Your task to perform on an android device: Open the calendar and show me this week's events? Image 0: 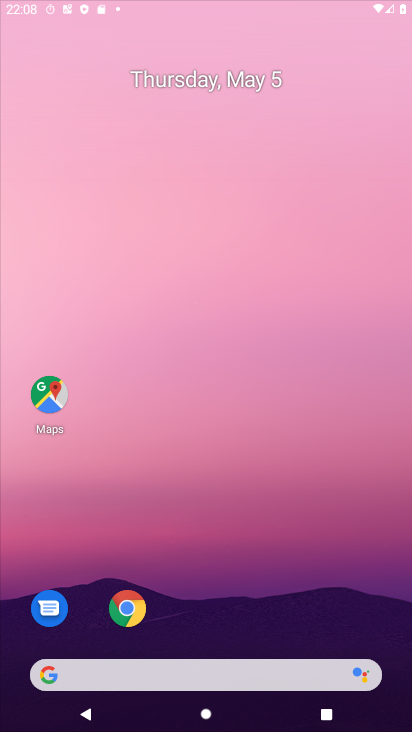
Step 0: click (341, 2)
Your task to perform on an android device: Open the calendar and show me this week's events? Image 1: 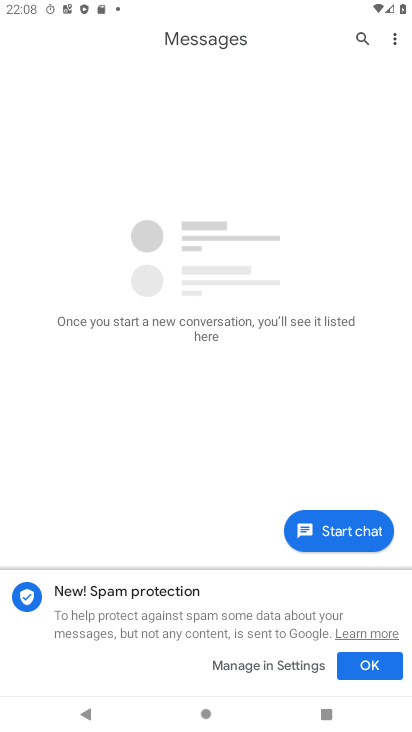
Step 1: press home button
Your task to perform on an android device: Open the calendar and show me this week's events? Image 2: 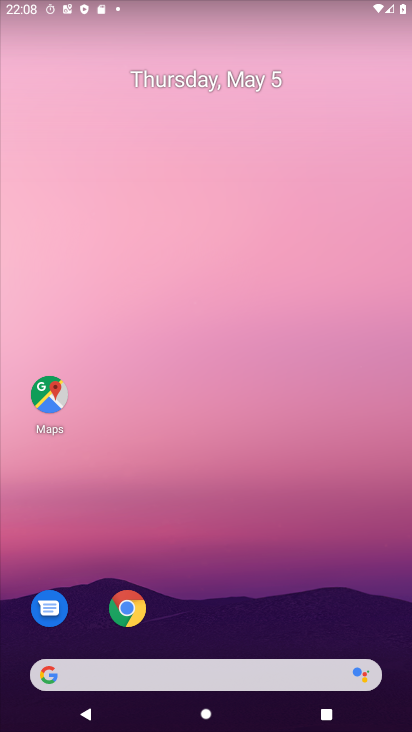
Step 2: drag from (279, 637) to (277, 23)
Your task to perform on an android device: Open the calendar and show me this week's events? Image 3: 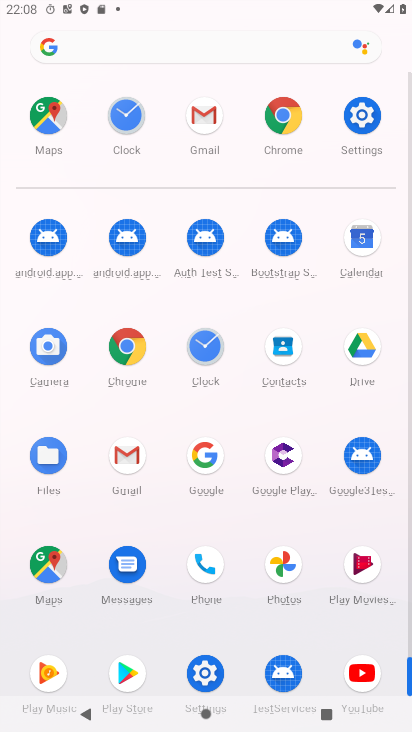
Step 3: click (365, 242)
Your task to perform on an android device: Open the calendar and show me this week's events? Image 4: 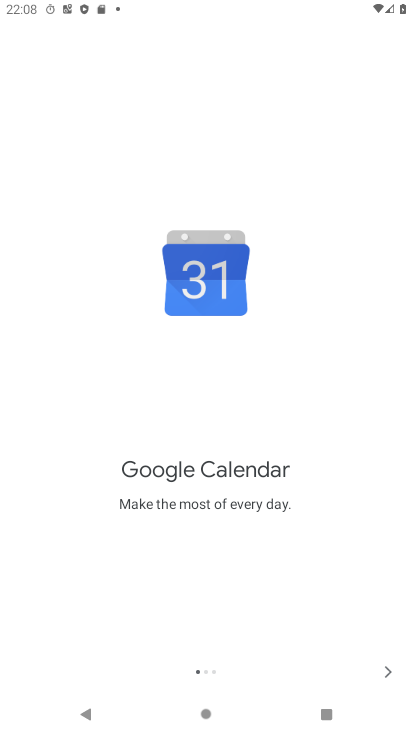
Step 4: click (385, 674)
Your task to perform on an android device: Open the calendar and show me this week's events? Image 5: 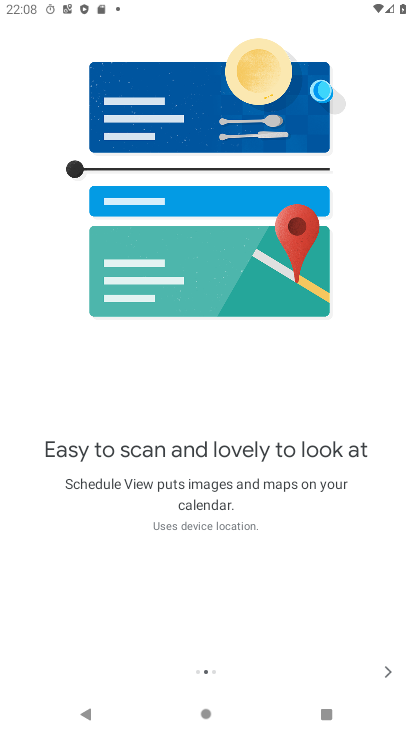
Step 5: click (385, 674)
Your task to perform on an android device: Open the calendar and show me this week's events? Image 6: 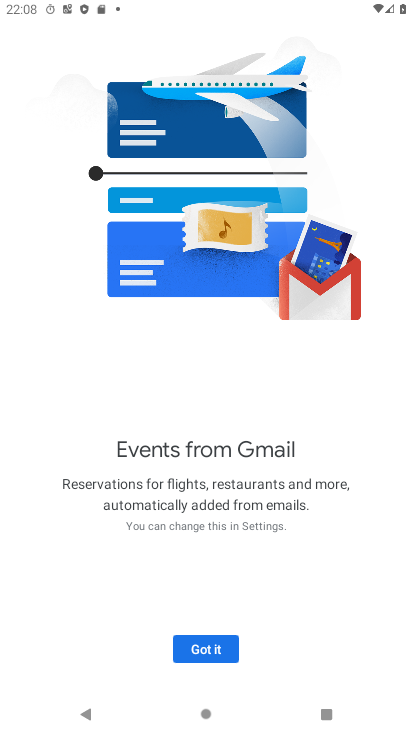
Step 6: click (229, 645)
Your task to perform on an android device: Open the calendar and show me this week's events? Image 7: 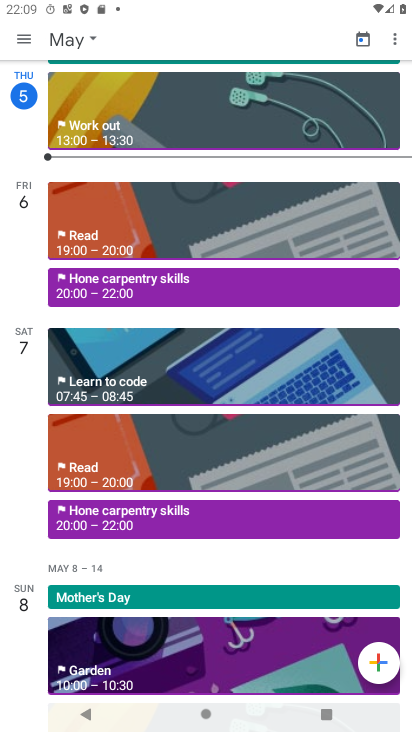
Step 7: click (87, 36)
Your task to perform on an android device: Open the calendar and show me this week's events? Image 8: 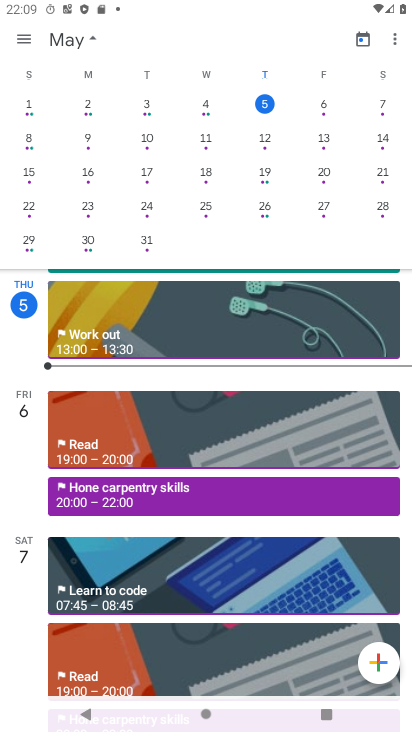
Step 8: drag from (365, 201) to (33, 223)
Your task to perform on an android device: Open the calendar and show me this week's events? Image 9: 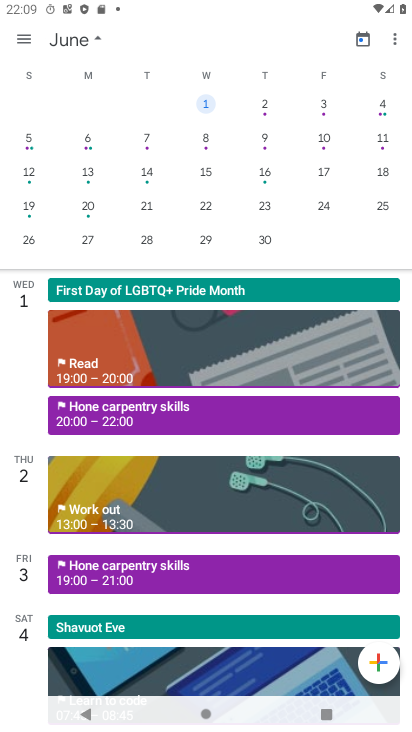
Step 9: drag from (132, 187) to (396, 109)
Your task to perform on an android device: Open the calendar and show me this week's events? Image 10: 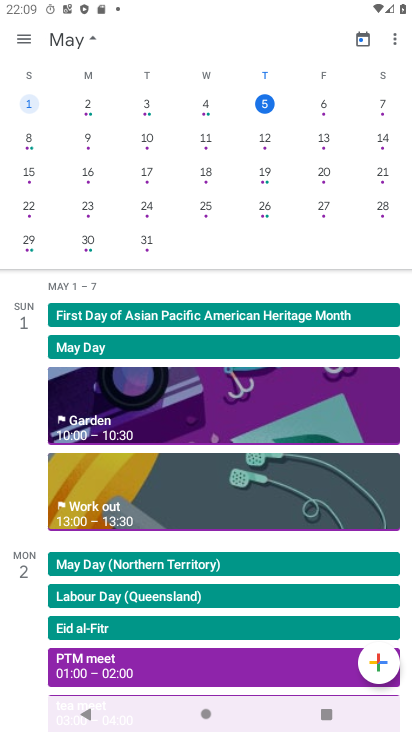
Step 10: click (324, 107)
Your task to perform on an android device: Open the calendar and show me this week's events? Image 11: 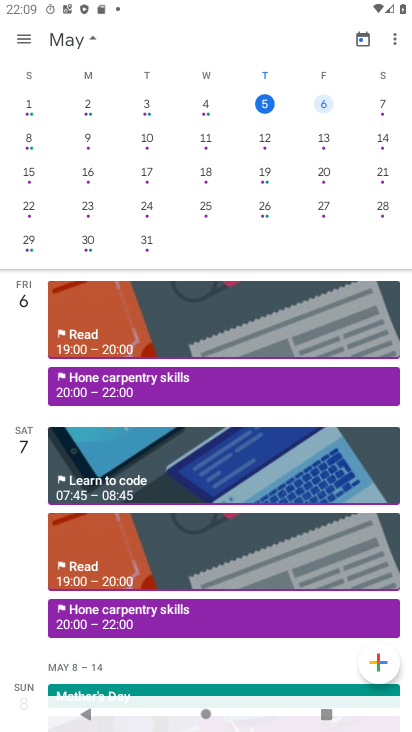
Step 11: click (321, 105)
Your task to perform on an android device: Open the calendar and show me this week's events? Image 12: 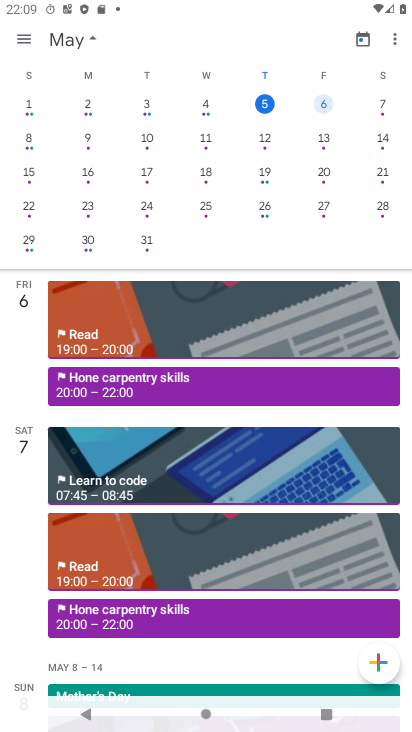
Step 12: click (202, 99)
Your task to perform on an android device: Open the calendar and show me this week's events? Image 13: 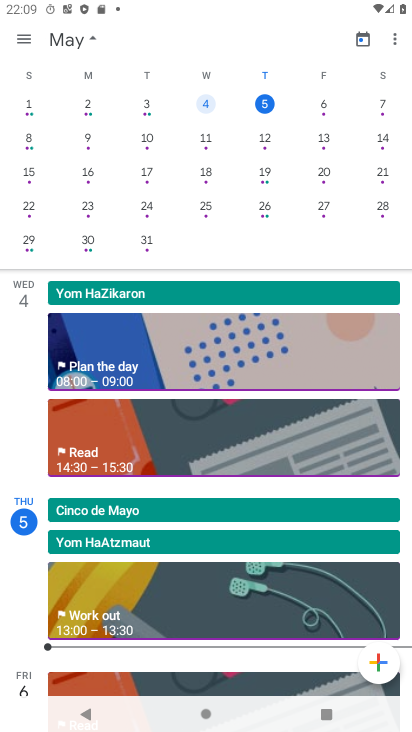
Step 13: click (320, 109)
Your task to perform on an android device: Open the calendar and show me this week's events? Image 14: 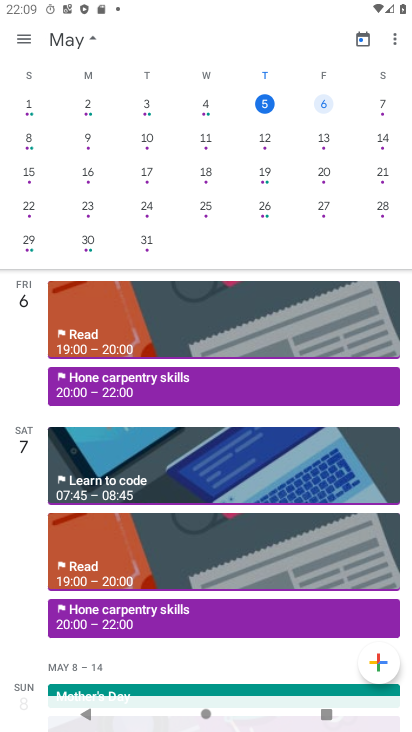
Step 14: task complete